Your task to perform on an android device: add a label to a message in the gmail app Image 0: 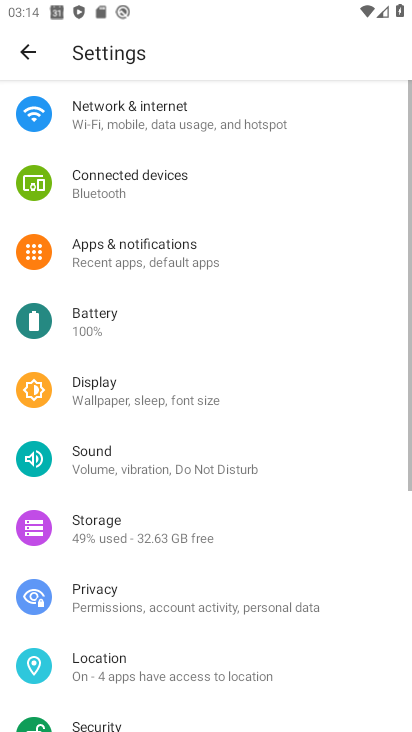
Step 0: press home button
Your task to perform on an android device: add a label to a message in the gmail app Image 1: 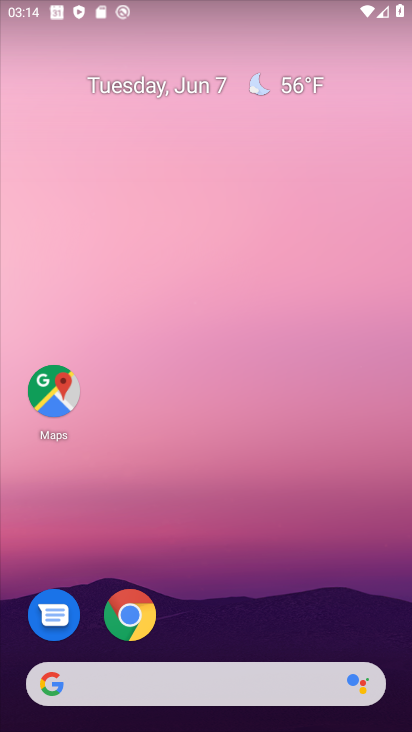
Step 1: drag from (180, 650) to (180, 253)
Your task to perform on an android device: add a label to a message in the gmail app Image 2: 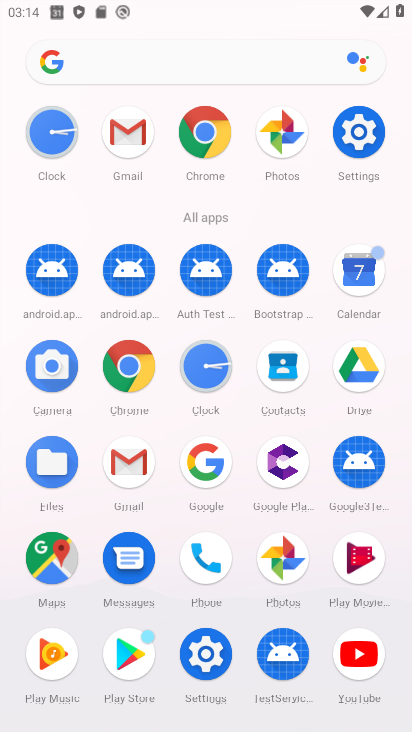
Step 2: click (126, 450)
Your task to perform on an android device: add a label to a message in the gmail app Image 3: 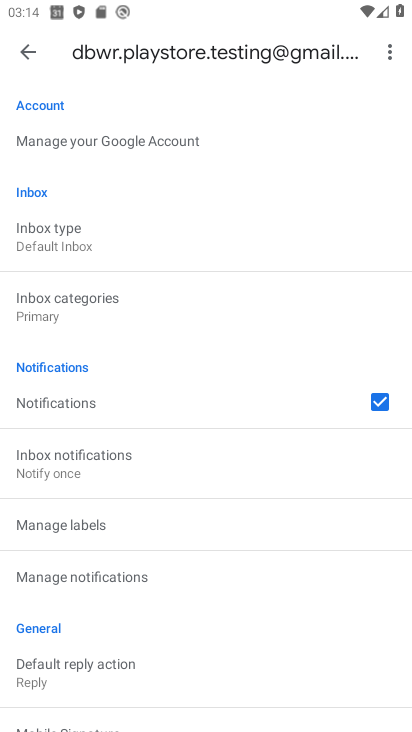
Step 3: click (26, 56)
Your task to perform on an android device: add a label to a message in the gmail app Image 4: 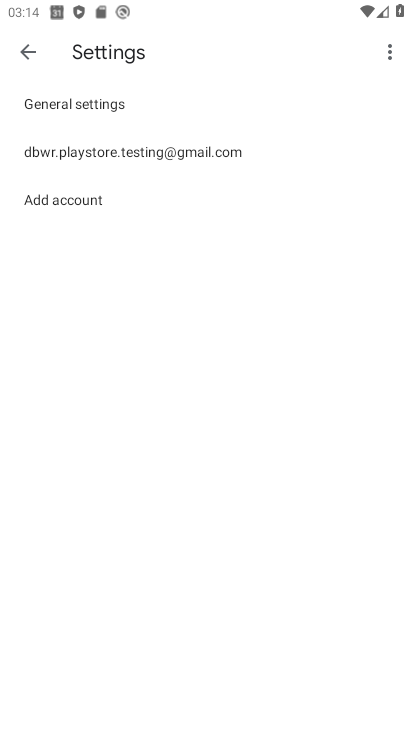
Step 4: click (26, 56)
Your task to perform on an android device: add a label to a message in the gmail app Image 5: 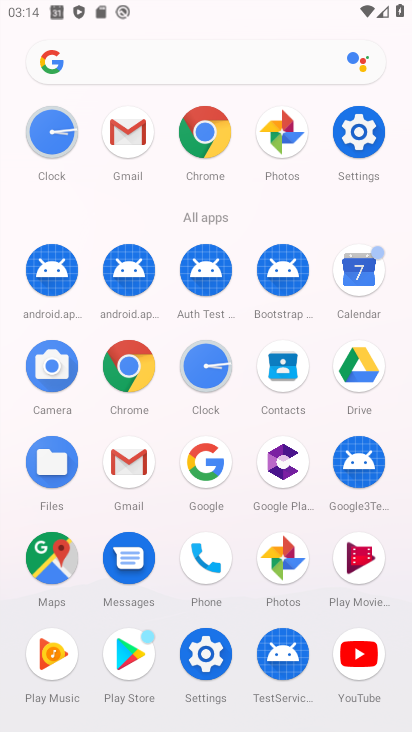
Step 5: click (129, 142)
Your task to perform on an android device: add a label to a message in the gmail app Image 6: 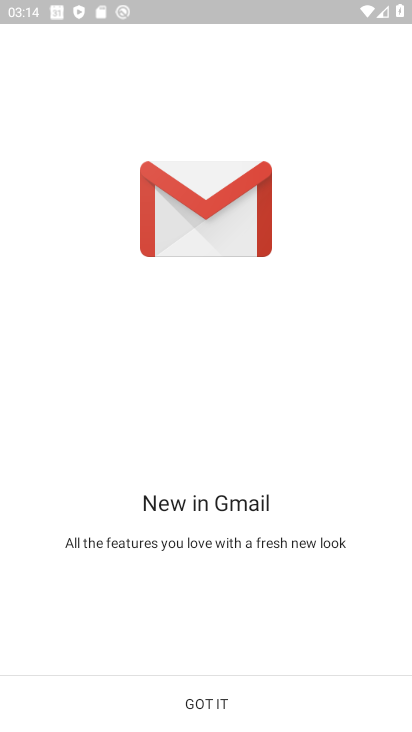
Step 6: click (190, 713)
Your task to perform on an android device: add a label to a message in the gmail app Image 7: 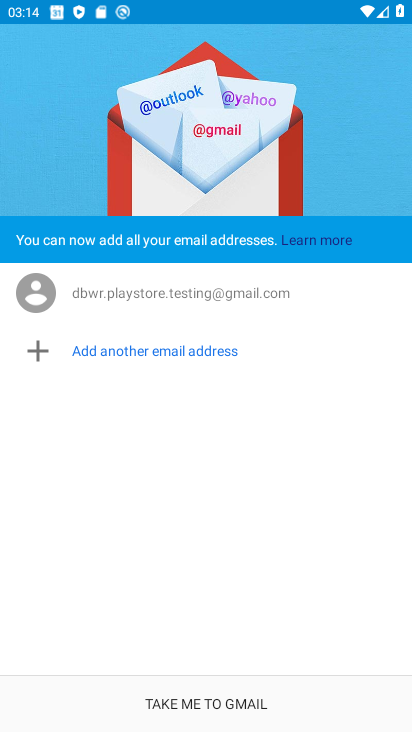
Step 7: click (191, 705)
Your task to perform on an android device: add a label to a message in the gmail app Image 8: 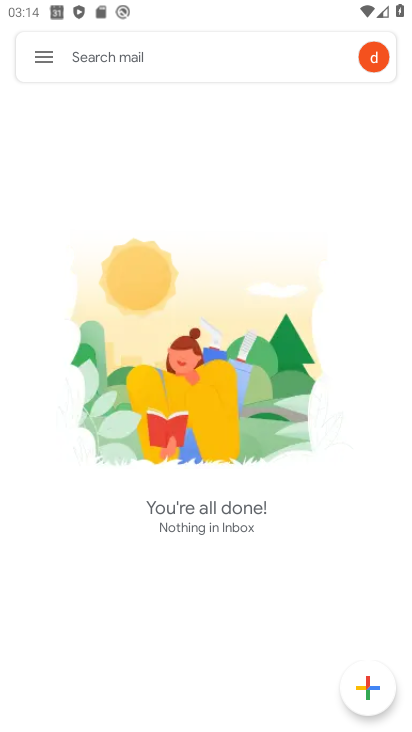
Step 8: click (41, 66)
Your task to perform on an android device: add a label to a message in the gmail app Image 9: 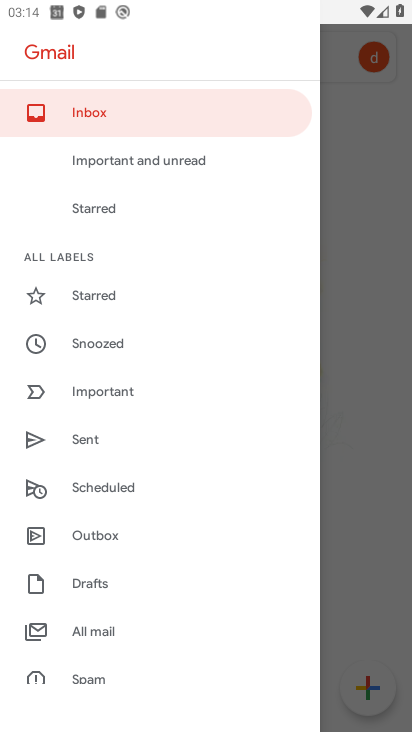
Step 9: click (99, 114)
Your task to perform on an android device: add a label to a message in the gmail app Image 10: 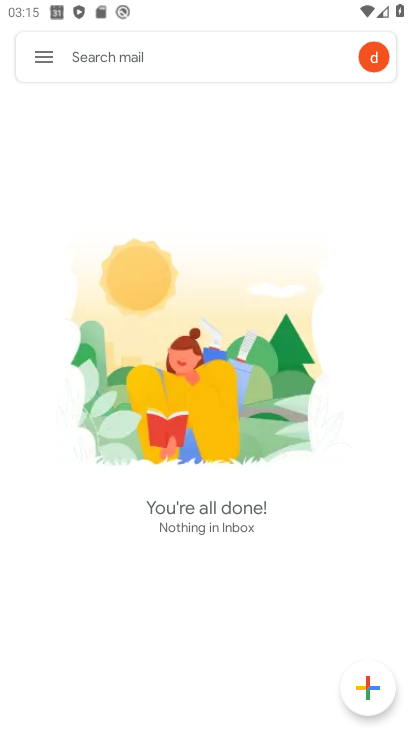
Step 10: task complete